Your task to perform on an android device: change alarm snooze length Image 0: 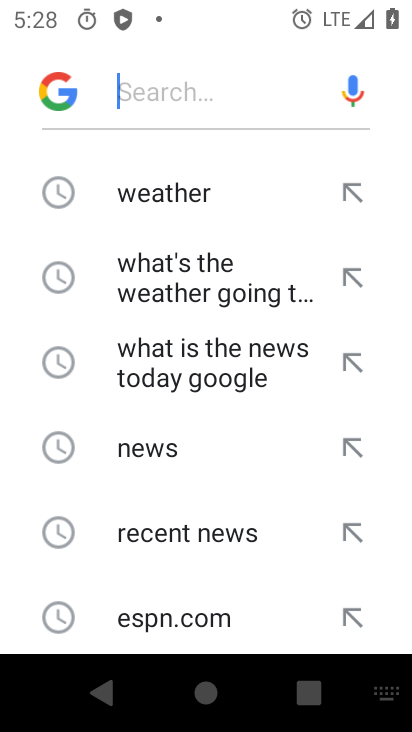
Step 0: press home button
Your task to perform on an android device: change alarm snooze length Image 1: 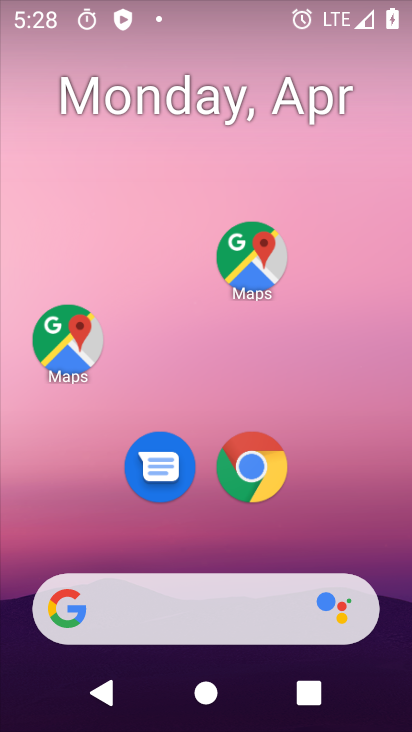
Step 1: drag from (300, 588) to (226, 4)
Your task to perform on an android device: change alarm snooze length Image 2: 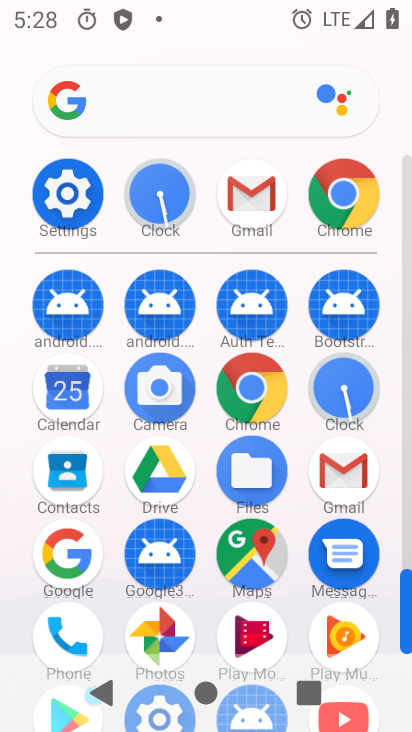
Step 2: click (350, 406)
Your task to perform on an android device: change alarm snooze length Image 3: 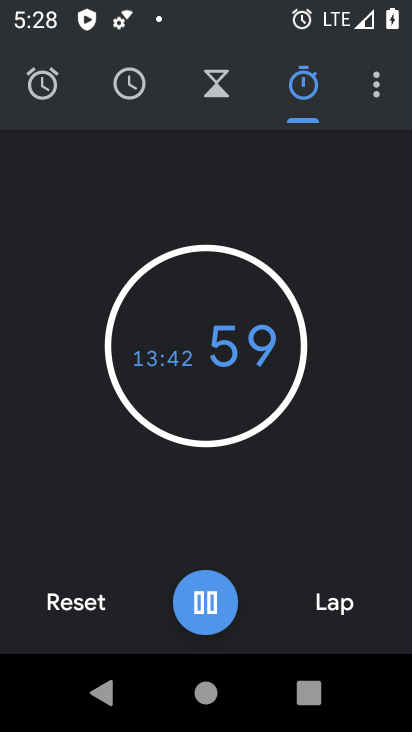
Step 3: drag from (379, 81) to (254, 177)
Your task to perform on an android device: change alarm snooze length Image 4: 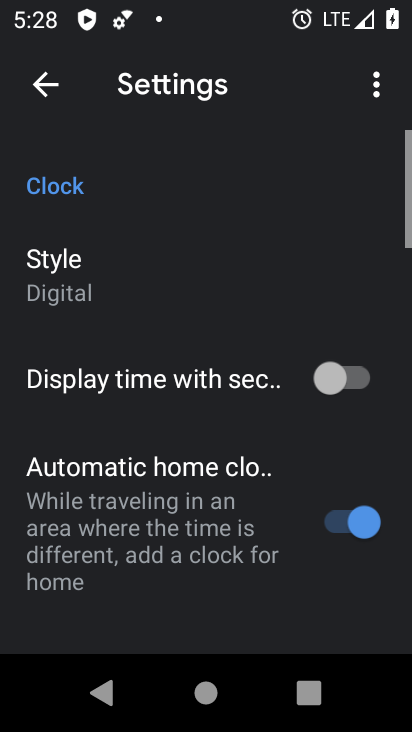
Step 4: drag from (243, 624) to (199, 69)
Your task to perform on an android device: change alarm snooze length Image 5: 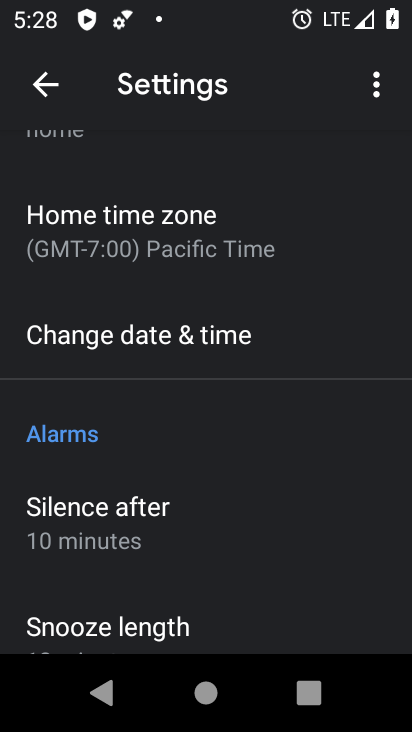
Step 5: drag from (212, 611) to (204, 334)
Your task to perform on an android device: change alarm snooze length Image 6: 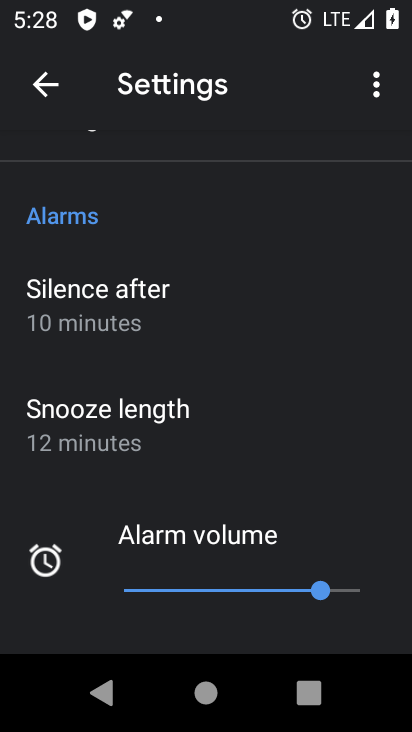
Step 6: click (219, 441)
Your task to perform on an android device: change alarm snooze length Image 7: 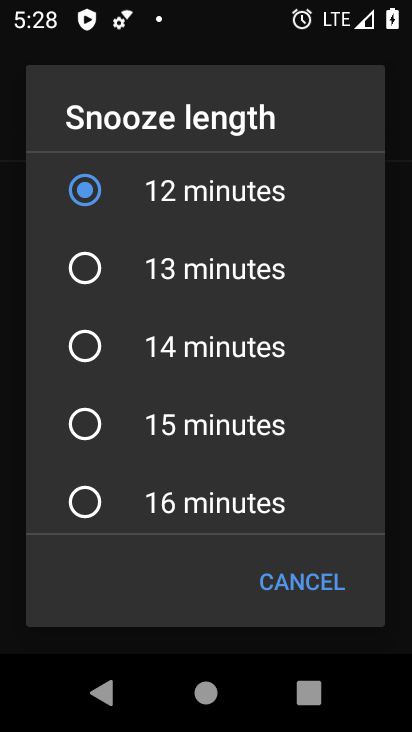
Step 7: click (234, 268)
Your task to perform on an android device: change alarm snooze length Image 8: 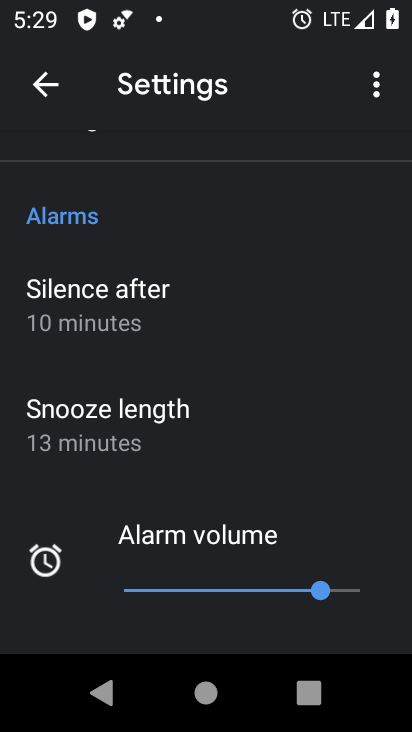
Step 8: task complete